Your task to perform on an android device: check google app version Image 0: 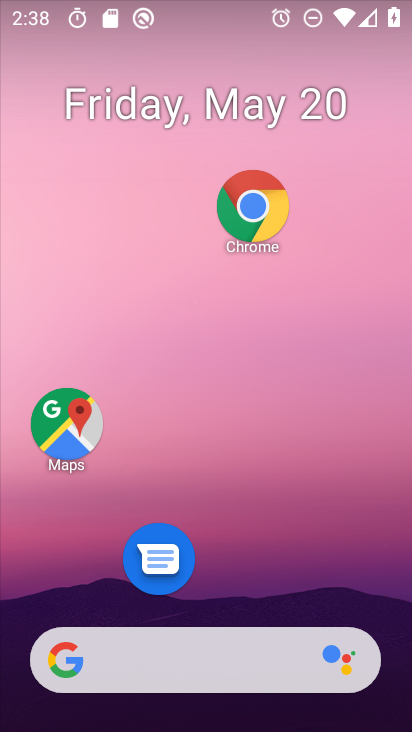
Step 0: drag from (210, 614) to (182, 55)
Your task to perform on an android device: check google app version Image 1: 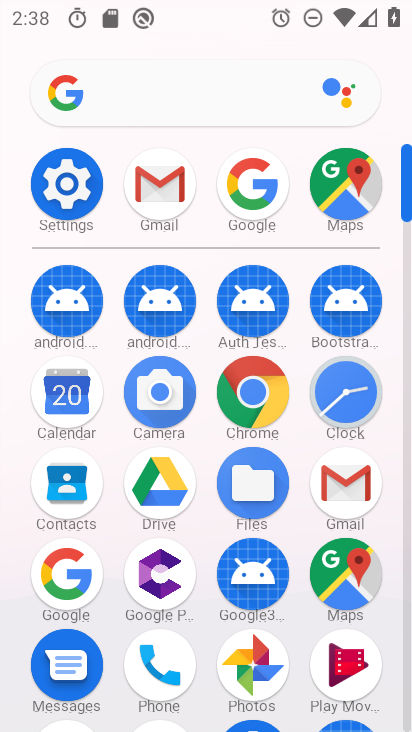
Step 1: click (84, 584)
Your task to perform on an android device: check google app version Image 2: 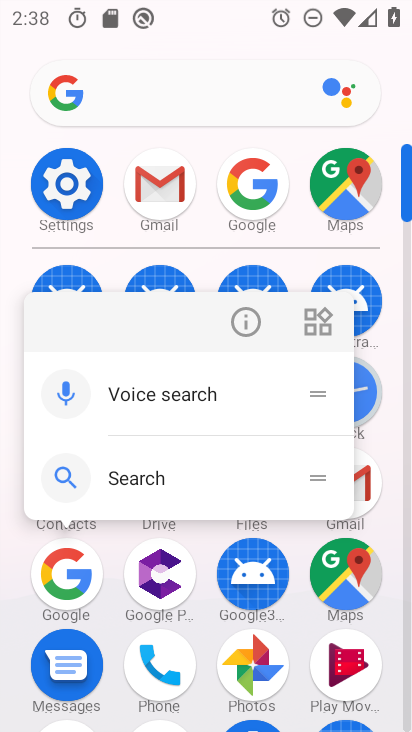
Step 2: click (230, 337)
Your task to perform on an android device: check google app version Image 3: 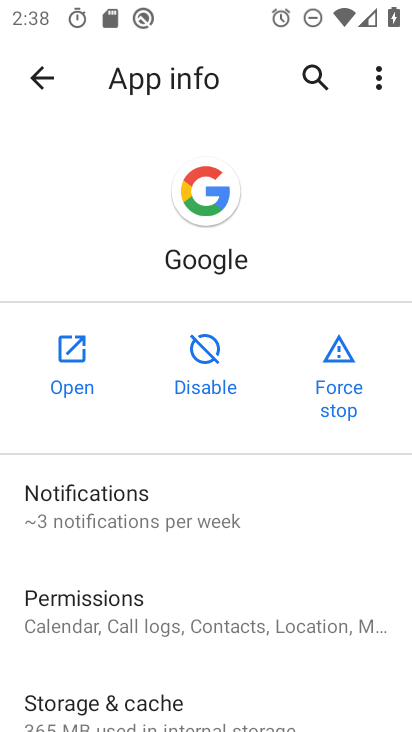
Step 3: drag from (109, 555) to (86, 28)
Your task to perform on an android device: check google app version Image 4: 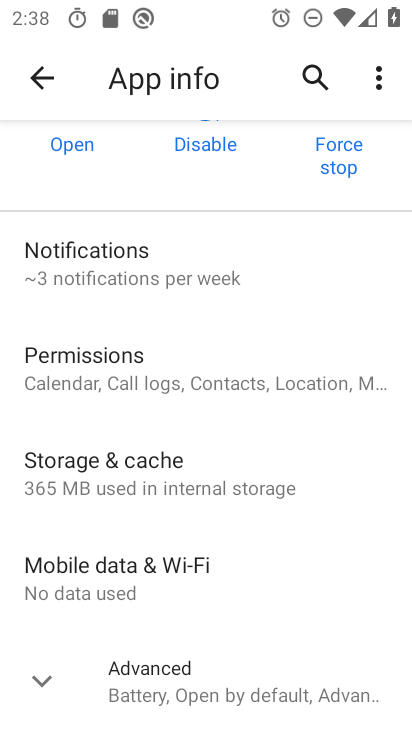
Step 4: click (205, 658)
Your task to perform on an android device: check google app version Image 5: 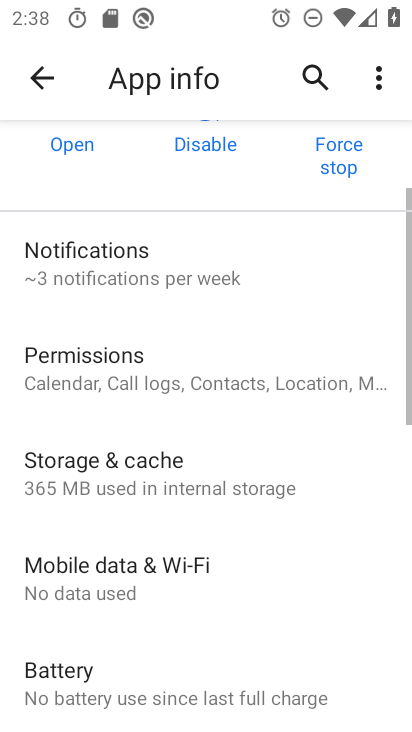
Step 5: drag from (205, 658) to (129, 201)
Your task to perform on an android device: check google app version Image 6: 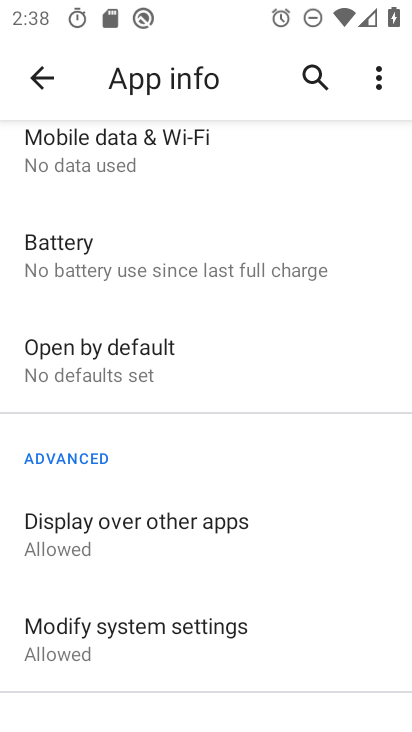
Step 6: drag from (169, 612) to (179, 163)
Your task to perform on an android device: check google app version Image 7: 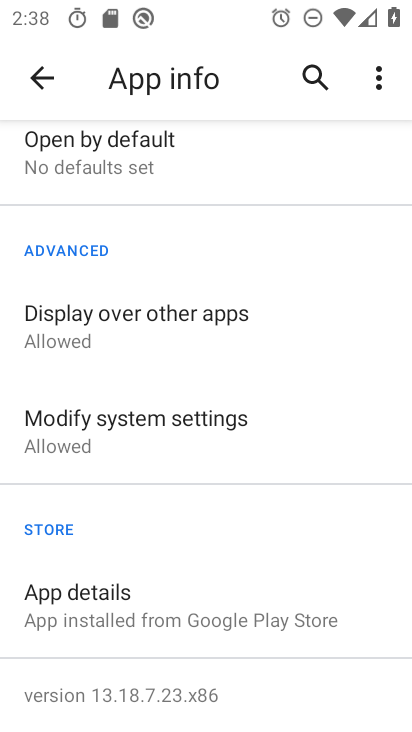
Step 7: click (174, 714)
Your task to perform on an android device: check google app version Image 8: 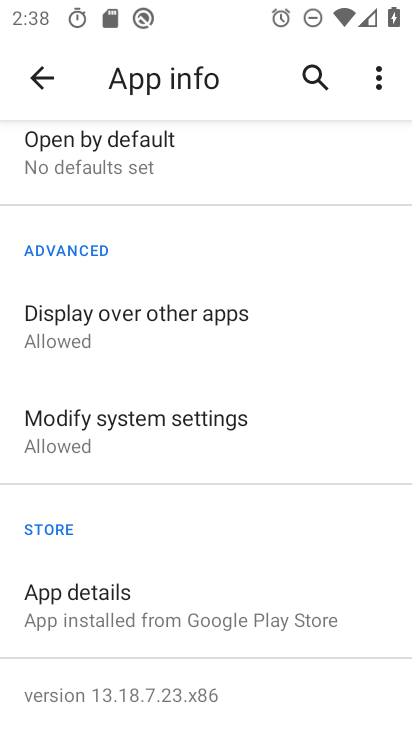
Step 8: task complete